Your task to perform on an android device: all mails in gmail Image 0: 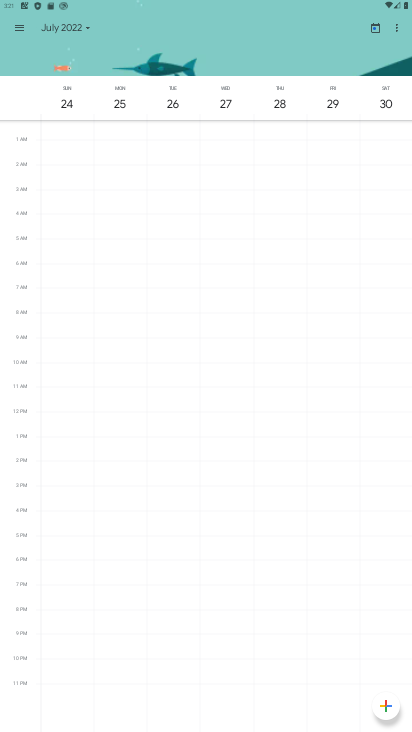
Step 0: press home button
Your task to perform on an android device: all mails in gmail Image 1: 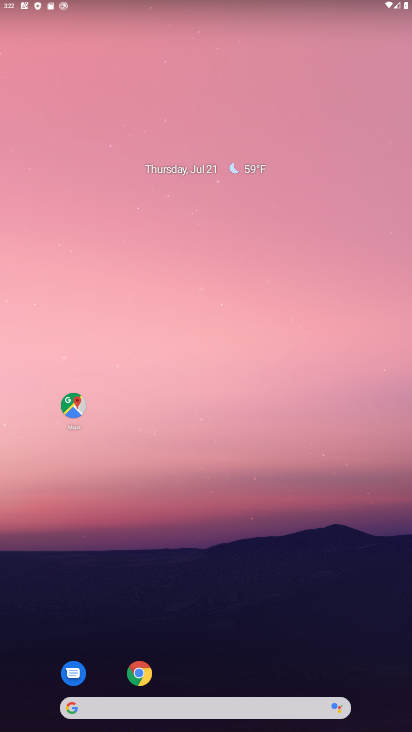
Step 1: drag from (388, 678) to (335, 202)
Your task to perform on an android device: all mails in gmail Image 2: 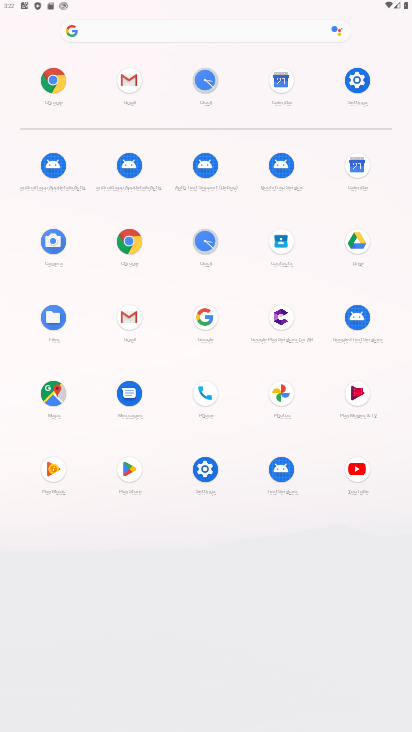
Step 2: click (128, 319)
Your task to perform on an android device: all mails in gmail Image 3: 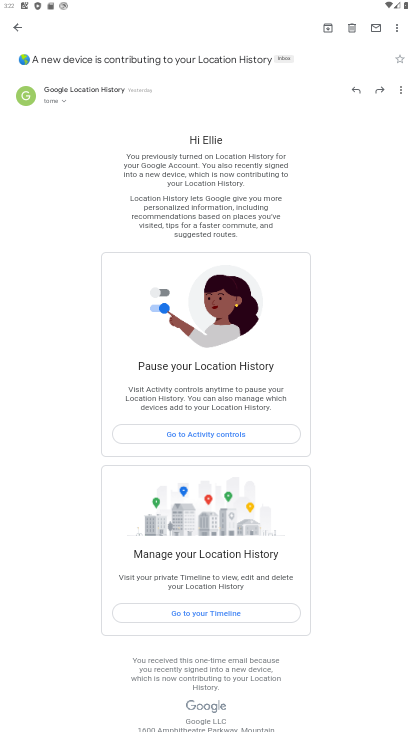
Step 3: press back button
Your task to perform on an android device: all mails in gmail Image 4: 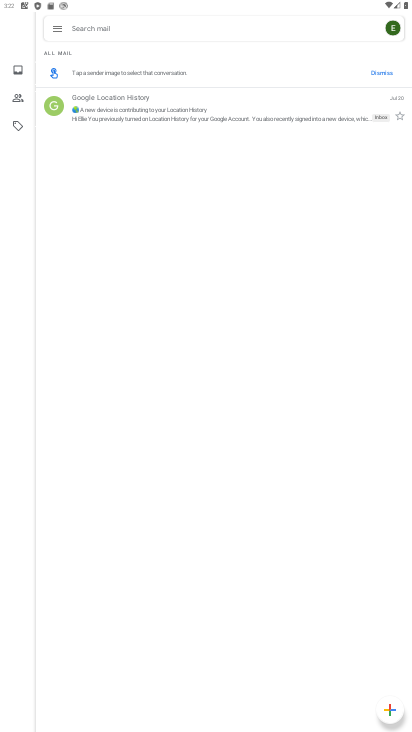
Step 4: click (58, 31)
Your task to perform on an android device: all mails in gmail Image 5: 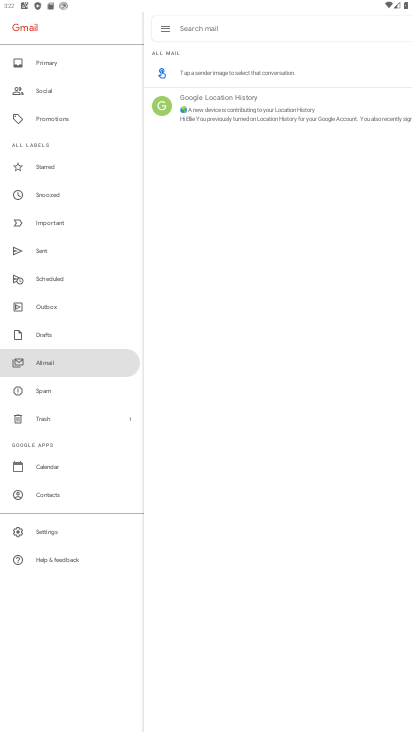
Step 5: click (68, 365)
Your task to perform on an android device: all mails in gmail Image 6: 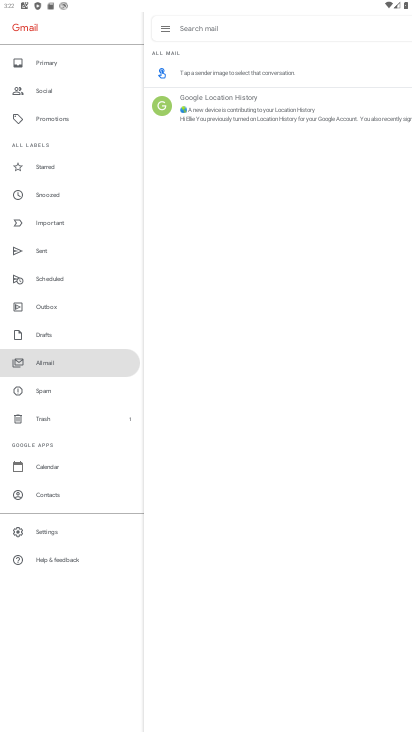
Step 6: task complete